Your task to perform on an android device: turn off wifi Image 0: 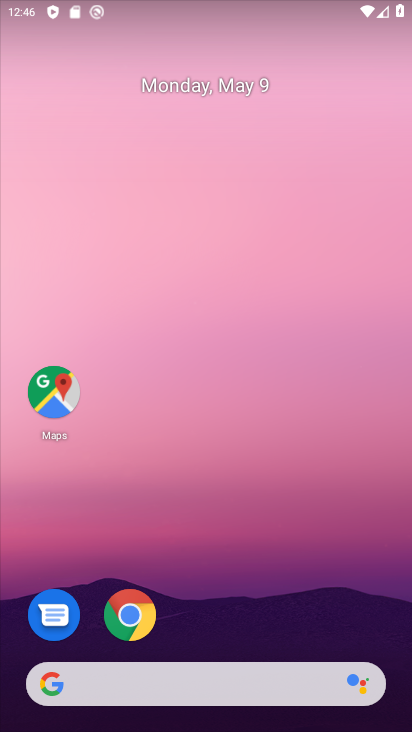
Step 0: drag from (366, 639) to (373, 30)
Your task to perform on an android device: turn off wifi Image 1: 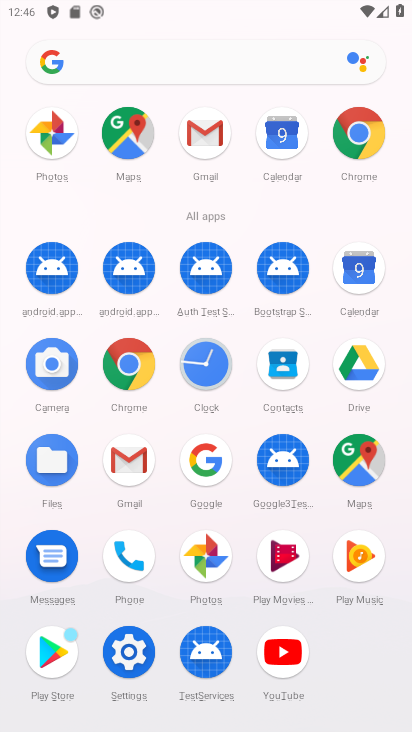
Step 1: click (127, 654)
Your task to perform on an android device: turn off wifi Image 2: 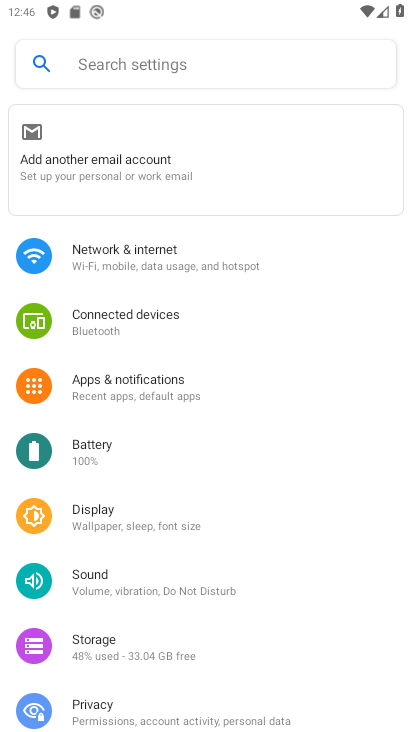
Step 2: click (125, 256)
Your task to perform on an android device: turn off wifi Image 3: 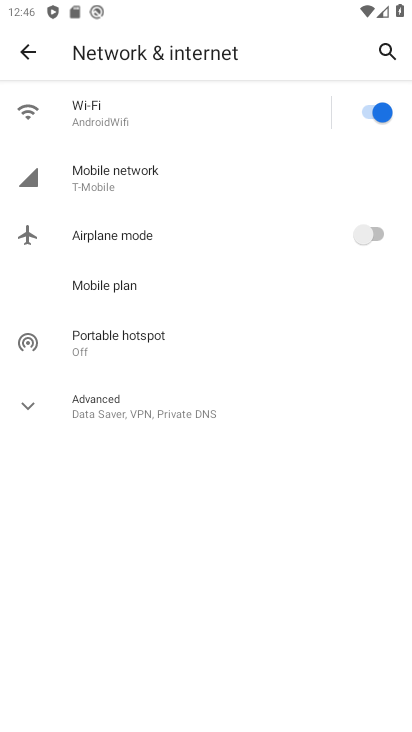
Step 3: click (361, 112)
Your task to perform on an android device: turn off wifi Image 4: 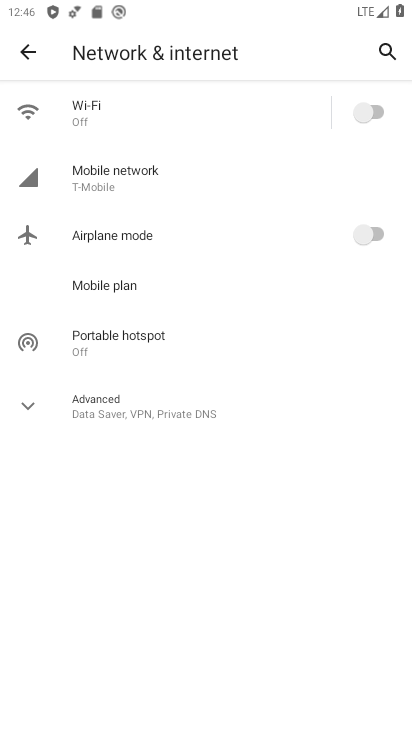
Step 4: task complete